Your task to perform on an android device: Open accessibility settings Image 0: 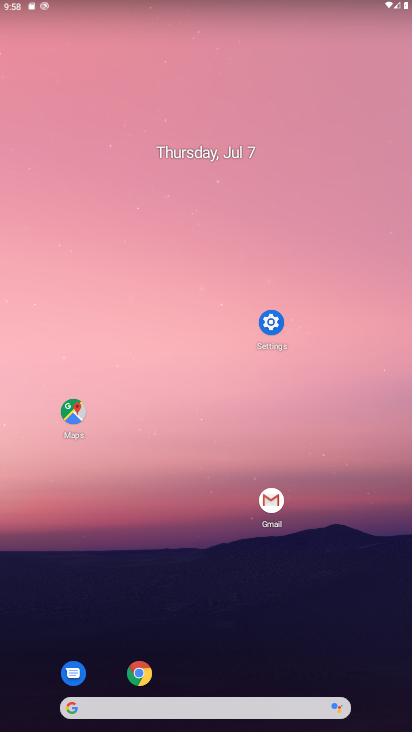
Step 0: drag from (404, 392) to (383, 11)
Your task to perform on an android device: Open accessibility settings Image 1: 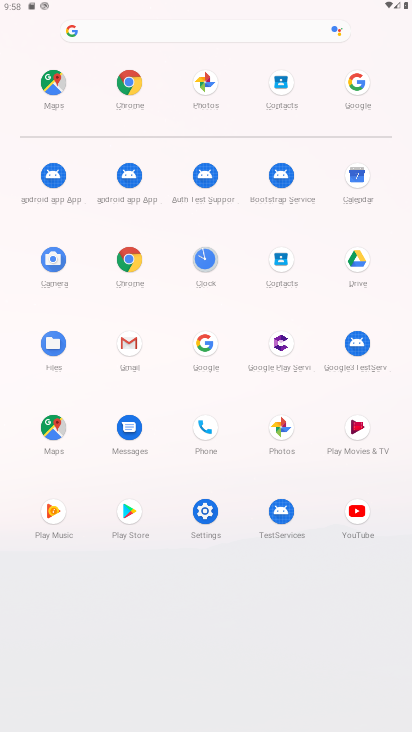
Step 1: click (218, 516)
Your task to perform on an android device: Open accessibility settings Image 2: 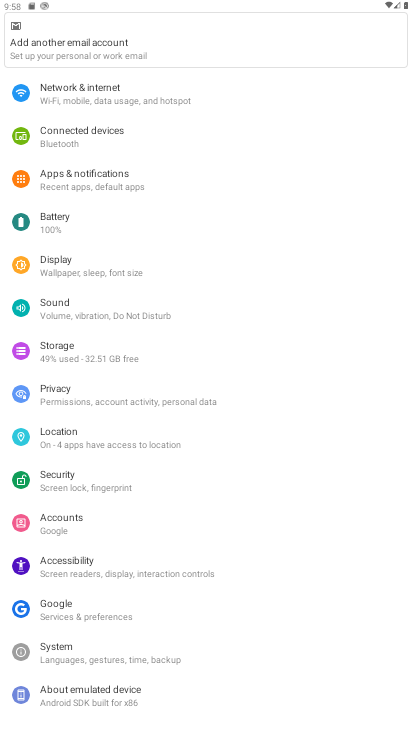
Step 2: click (66, 565)
Your task to perform on an android device: Open accessibility settings Image 3: 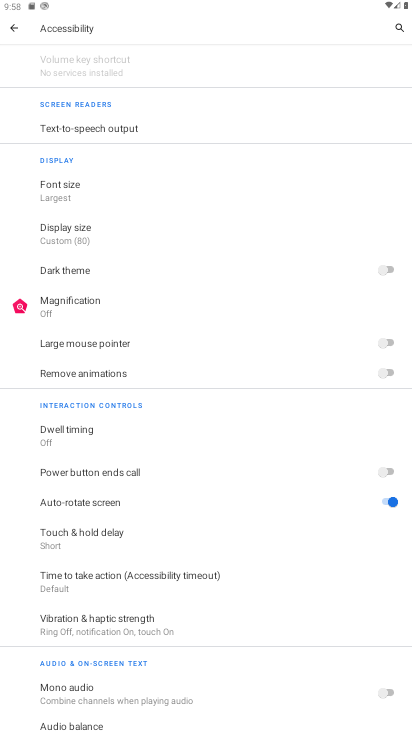
Step 3: task complete